Your task to perform on an android device: What's the weather today? Image 0: 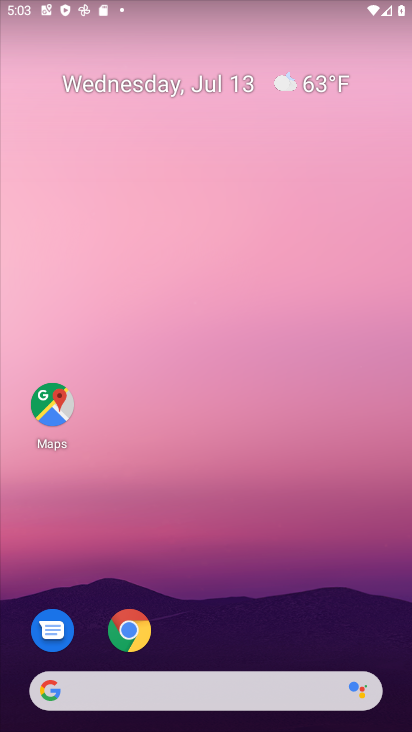
Step 0: press home button
Your task to perform on an android device: What's the weather today? Image 1: 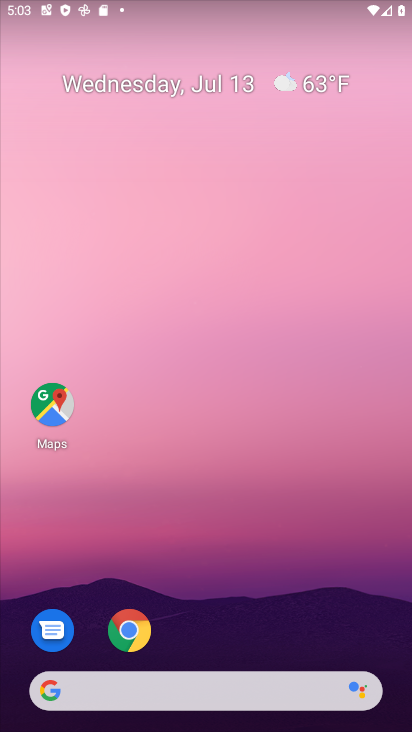
Step 1: click (48, 689)
Your task to perform on an android device: What's the weather today? Image 2: 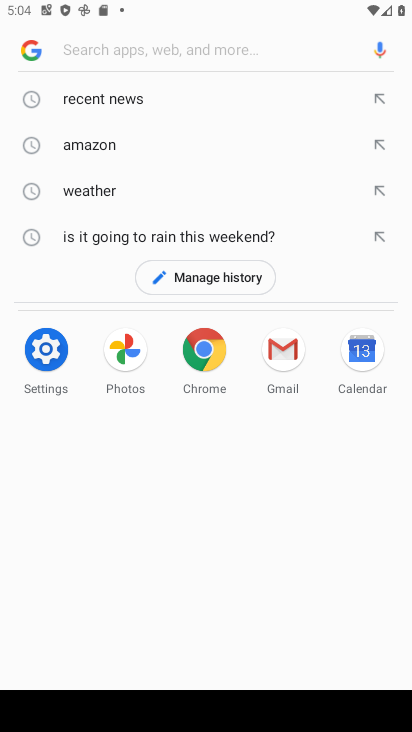
Step 2: type "weather today?"
Your task to perform on an android device: What's the weather today? Image 3: 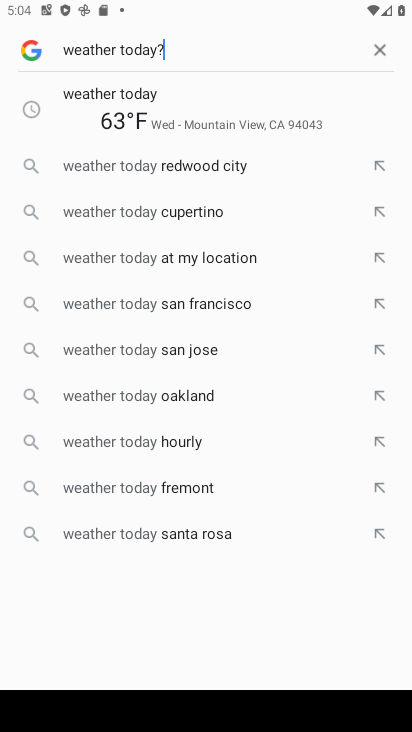
Step 3: press enter
Your task to perform on an android device: What's the weather today? Image 4: 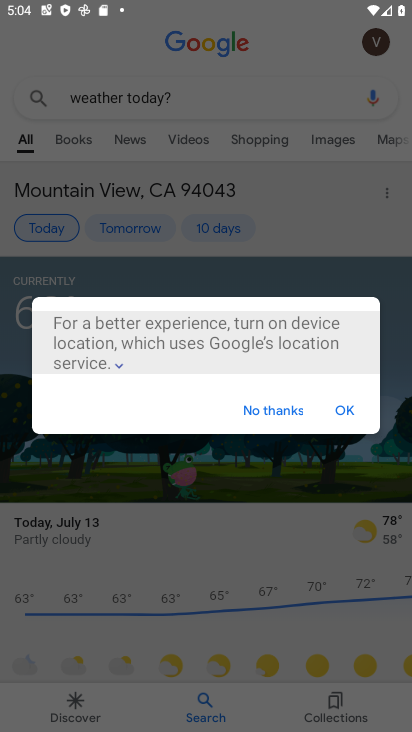
Step 4: click (261, 410)
Your task to perform on an android device: What's the weather today? Image 5: 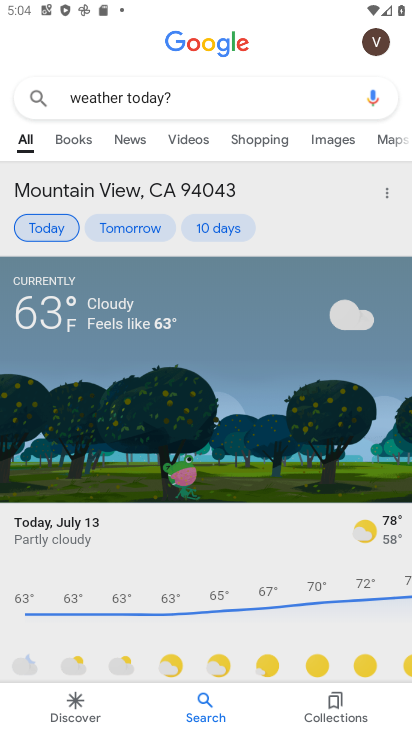
Step 5: task complete